Your task to perform on an android device: turn off sleep mode Image 0: 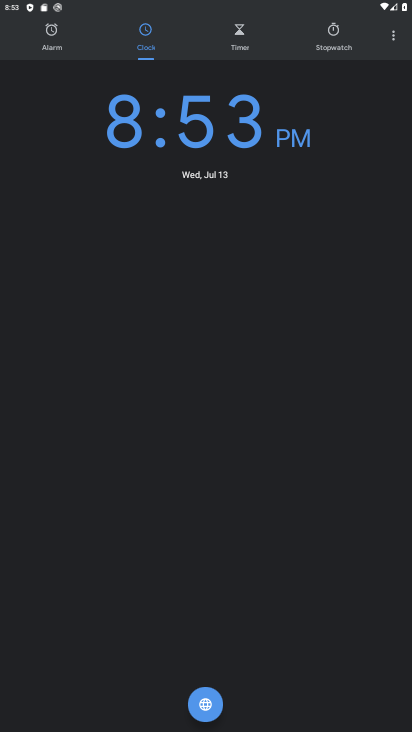
Step 0: press home button
Your task to perform on an android device: turn off sleep mode Image 1: 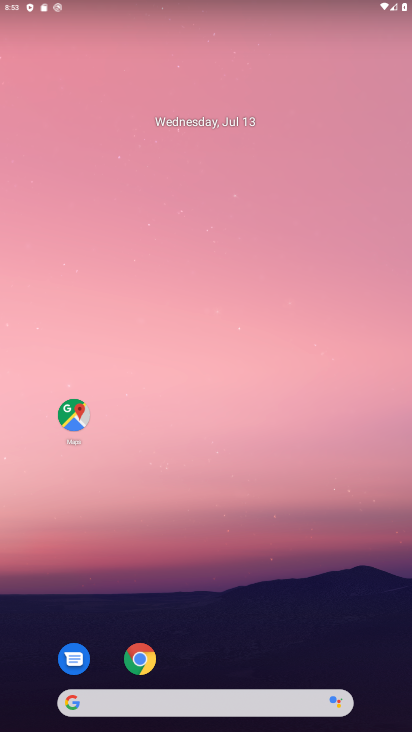
Step 1: drag from (350, 680) to (255, 112)
Your task to perform on an android device: turn off sleep mode Image 2: 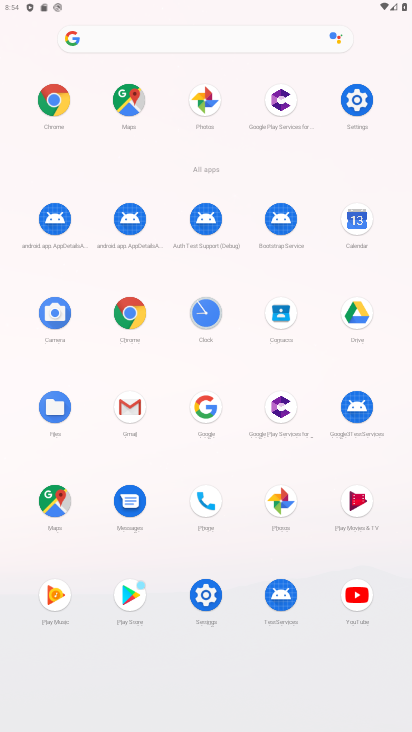
Step 2: click (207, 595)
Your task to perform on an android device: turn off sleep mode Image 3: 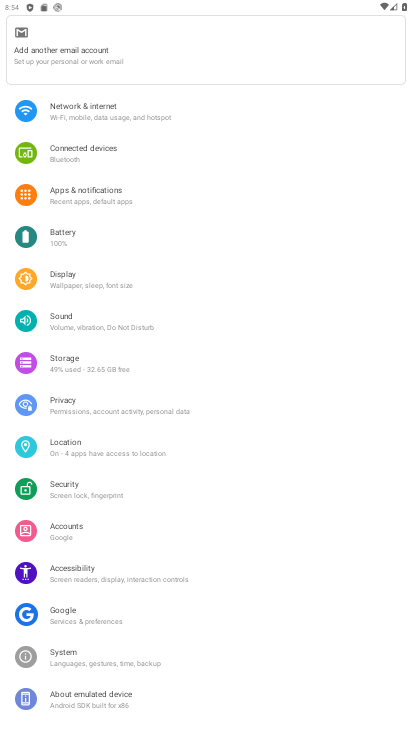
Step 3: click (63, 279)
Your task to perform on an android device: turn off sleep mode Image 4: 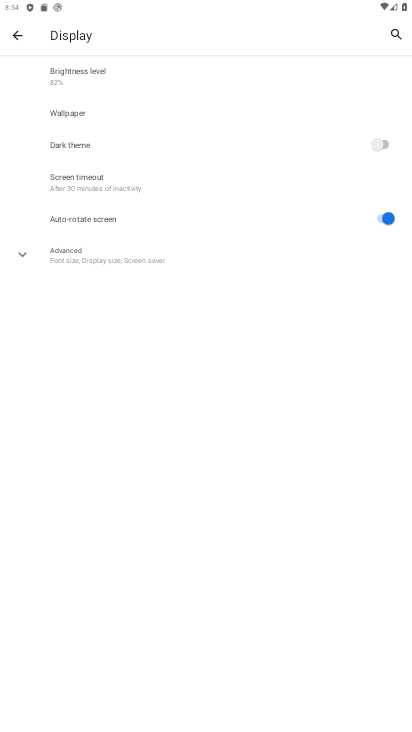
Step 4: click (33, 259)
Your task to perform on an android device: turn off sleep mode Image 5: 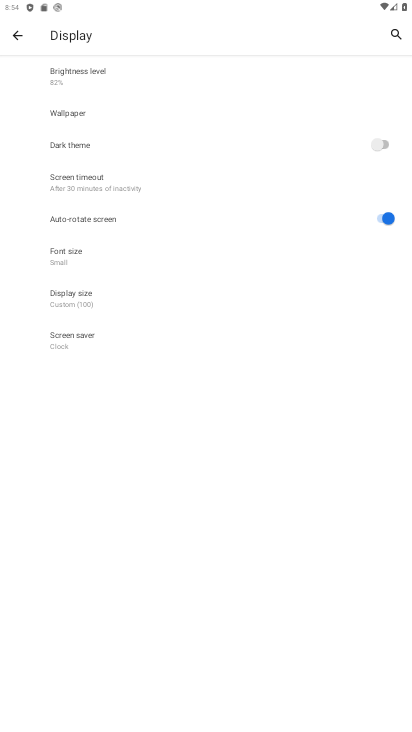
Step 5: task complete